Your task to perform on an android device: Search for sushi restaurants on Maps Image 0: 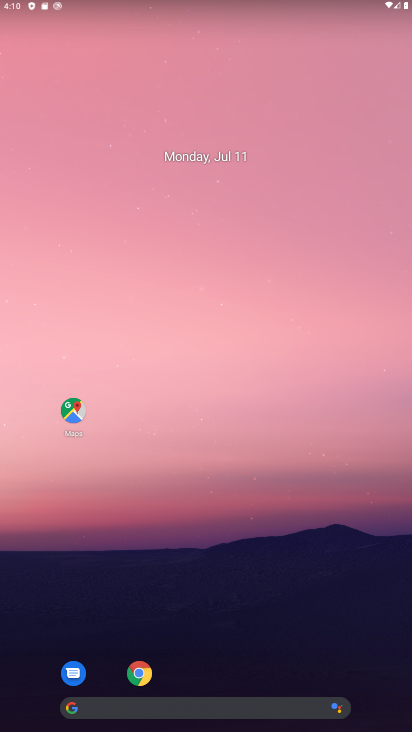
Step 0: click (73, 409)
Your task to perform on an android device: Search for sushi restaurants on Maps Image 1: 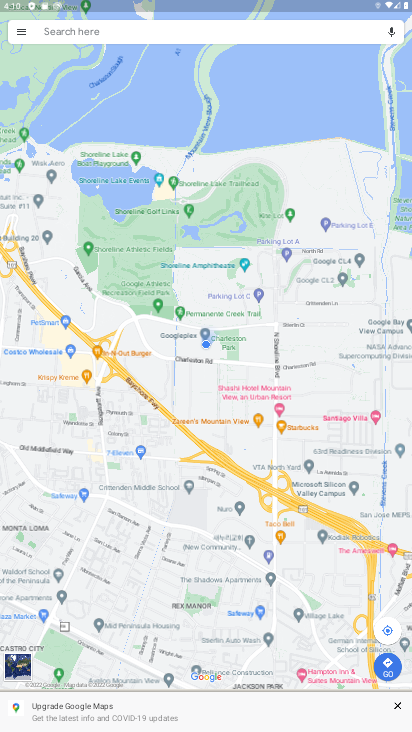
Step 1: click (149, 33)
Your task to perform on an android device: Search for sushi restaurants on Maps Image 2: 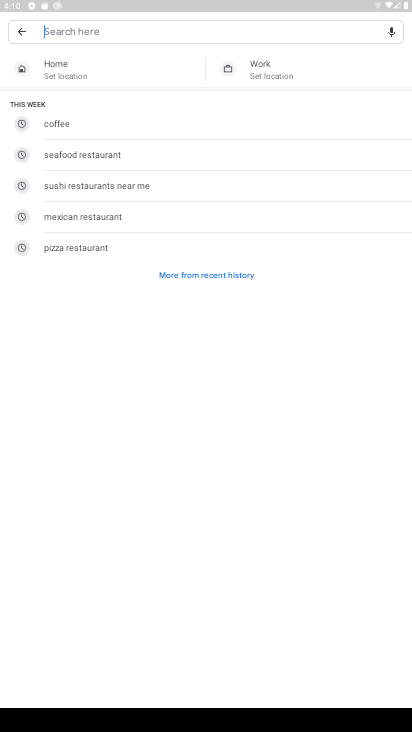
Step 2: type "sushi restaurants"
Your task to perform on an android device: Search for sushi restaurants on Maps Image 3: 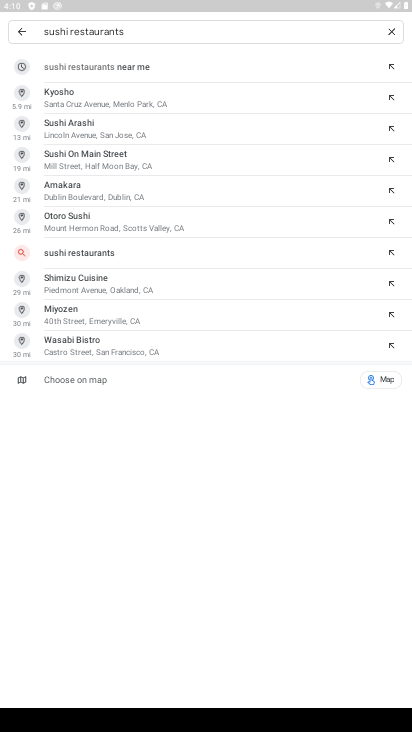
Step 3: click (139, 62)
Your task to perform on an android device: Search for sushi restaurants on Maps Image 4: 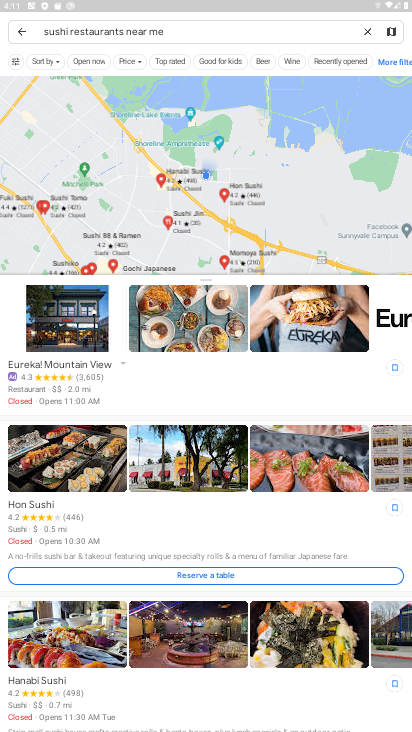
Step 4: task complete